Your task to perform on an android device: When is my next appointment? Image 0: 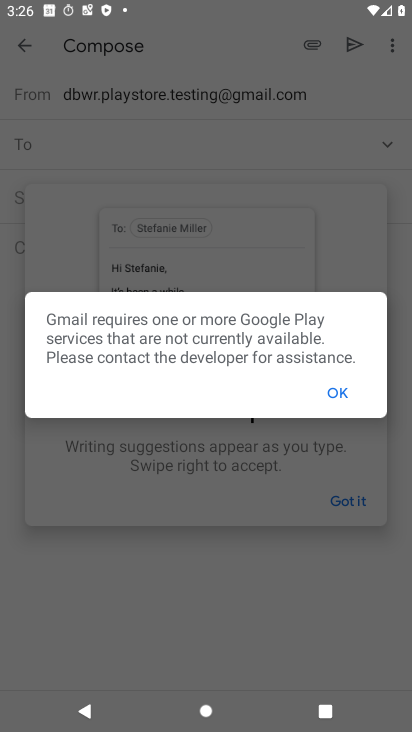
Step 0: press home button
Your task to perform on an android device: When is my next appointment? Image 1: 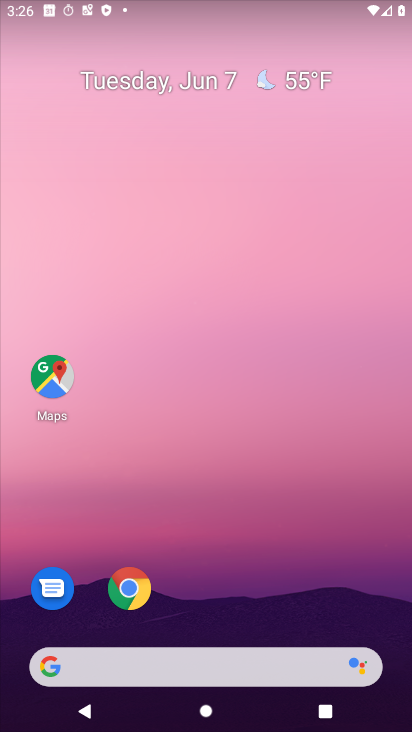
Step 1: drag from (249, 599) to (340, 60)
Your task to perform on an android device: When is my next appointment? Image 2: 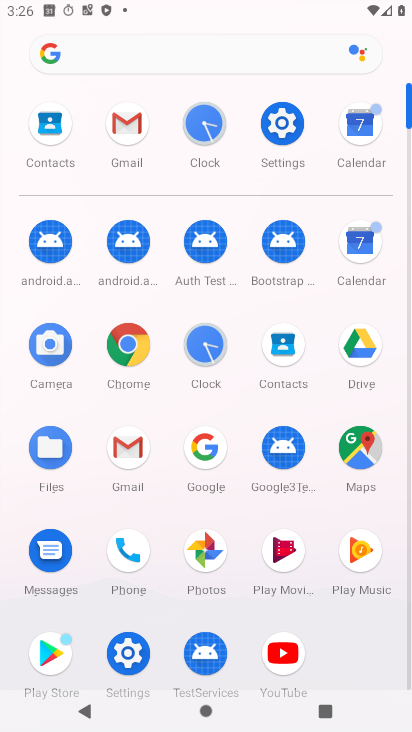
Step 2: click (371, 237)
Your task to perform on an android device: When is my next appointment? Image 3: 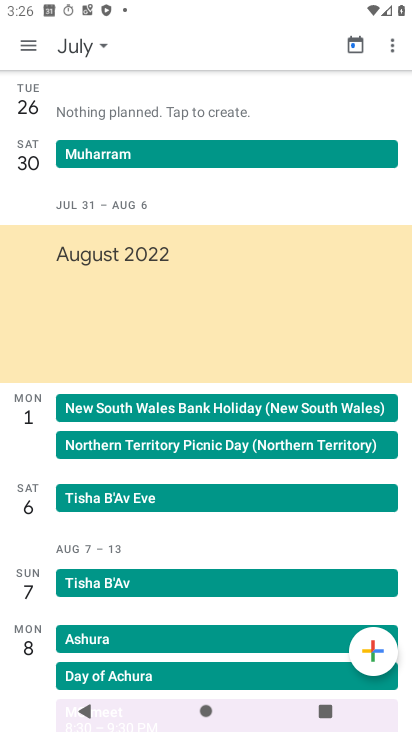
Step 3: task complete